Your task to perform on an android device: manage bookmarks in the chrome app Image 0: 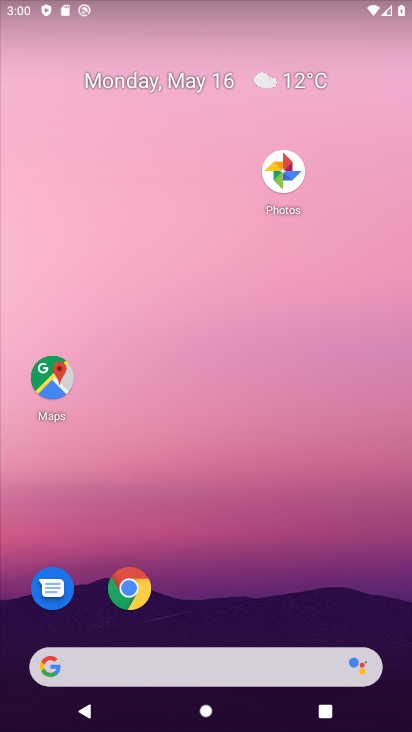
Step 0: click (124, 591)
Your task to perform on an android device: manage bookmarks in the chrome app Image 1: 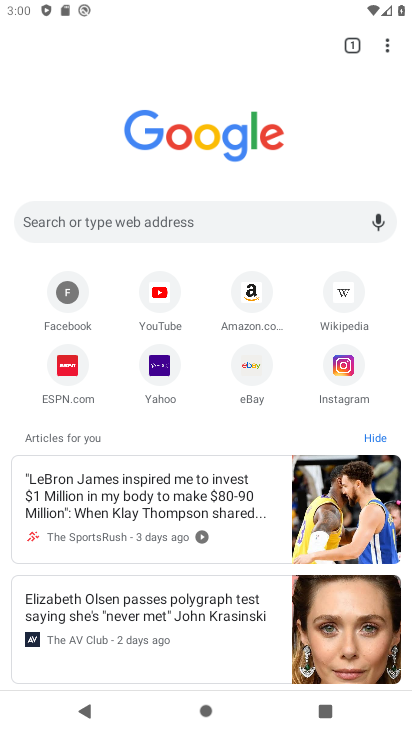
Step 1: click (124, 591)
Your task to perform on an android device: manage bookmarks in the chrome app Image 2: 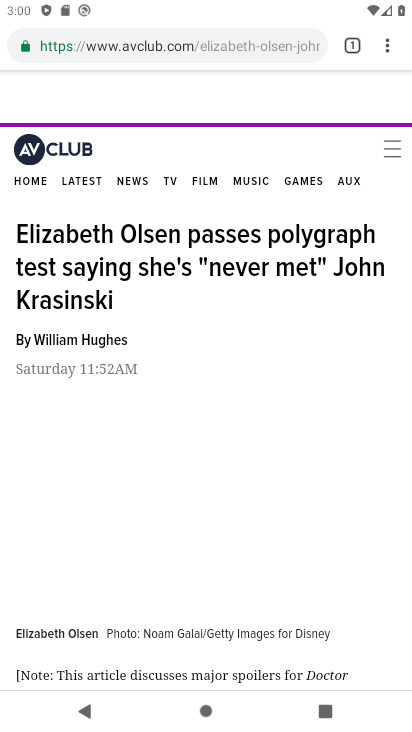
Step 2: click (393, 46)
Your task to perform on an android device: manage bookmarks in the chrome app Image 3: 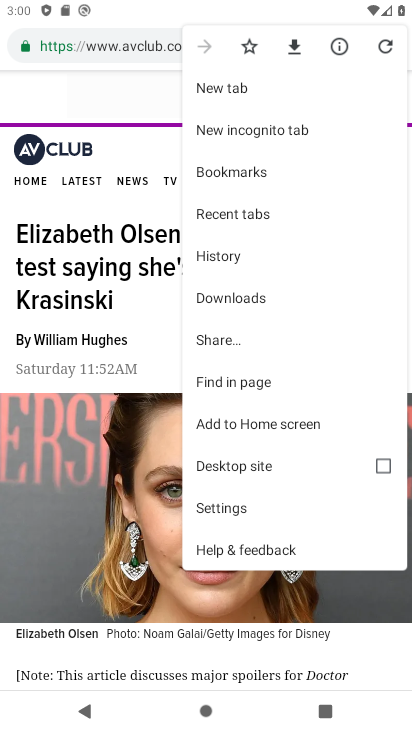
Step 3: click (263, 182)
Your task to perform on an android device: manage bookmarks in the chrome app Image 4: 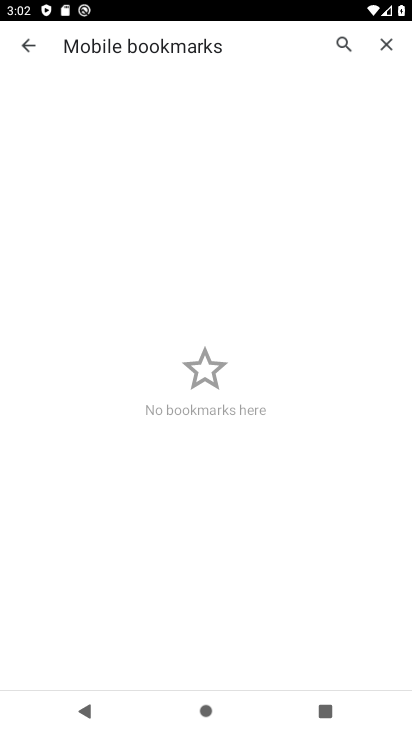
Step 4: task complete